Your task to perform on an android device: install app "eBay: The shopping marketplace" Image 0: 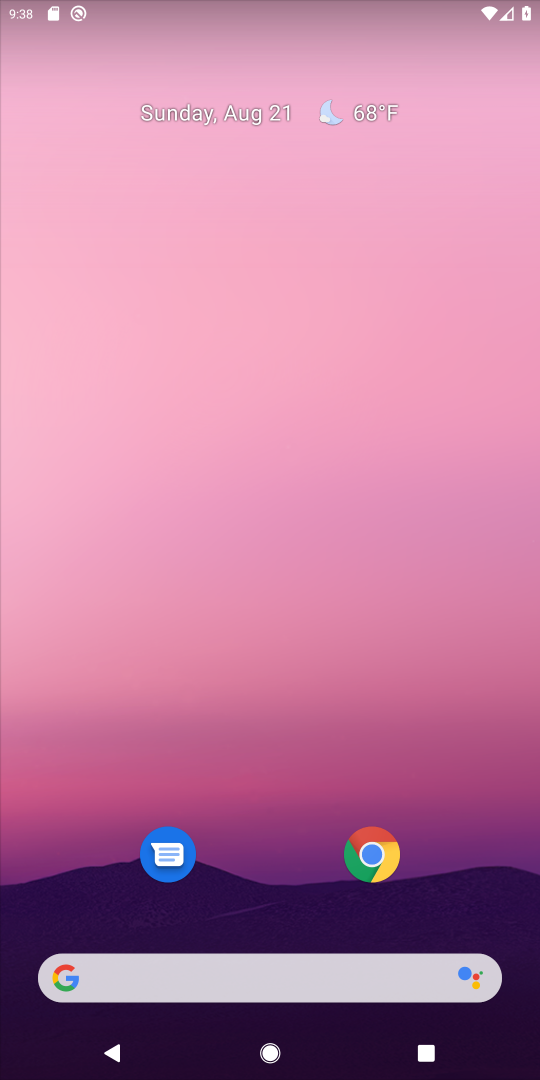
Step 0: drag from (276, 947) to (229, 181)
Your task to perform on an android device: install app "eBay: The shopping marketplace" Image 1: 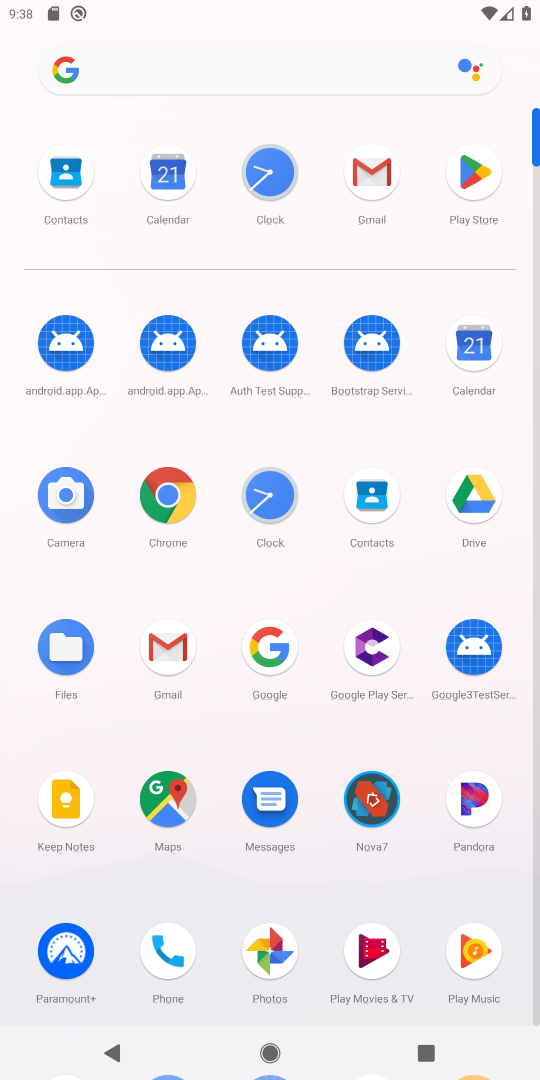
Step 1: click (473, 168)
Your task to perform on an android device: install app "eBay: The shopping marketplace" Image 2: 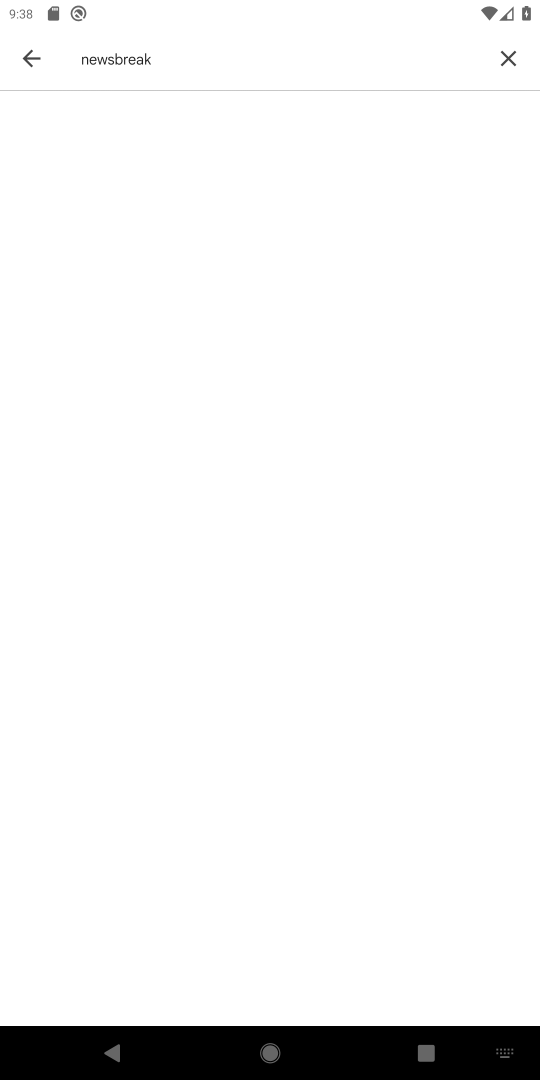
Step 2: click (511, 70)
Your task to perform on an android device: install app "eBay: The shopping marketplace" Image 3: 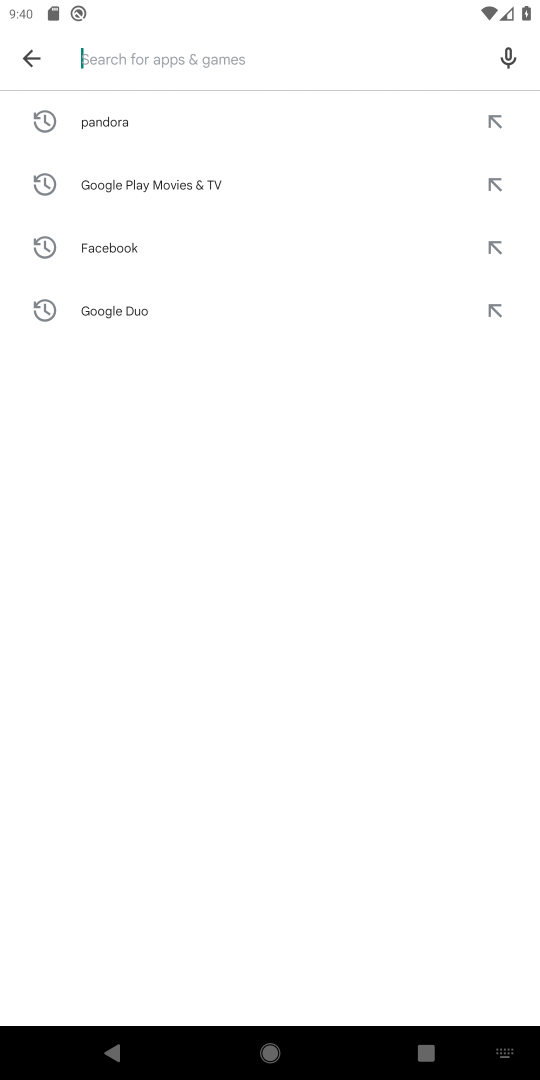
Step 3: type "ebay"
Your task to perform on an android device: install app "eBay: The shopping marketplace" Image 4: 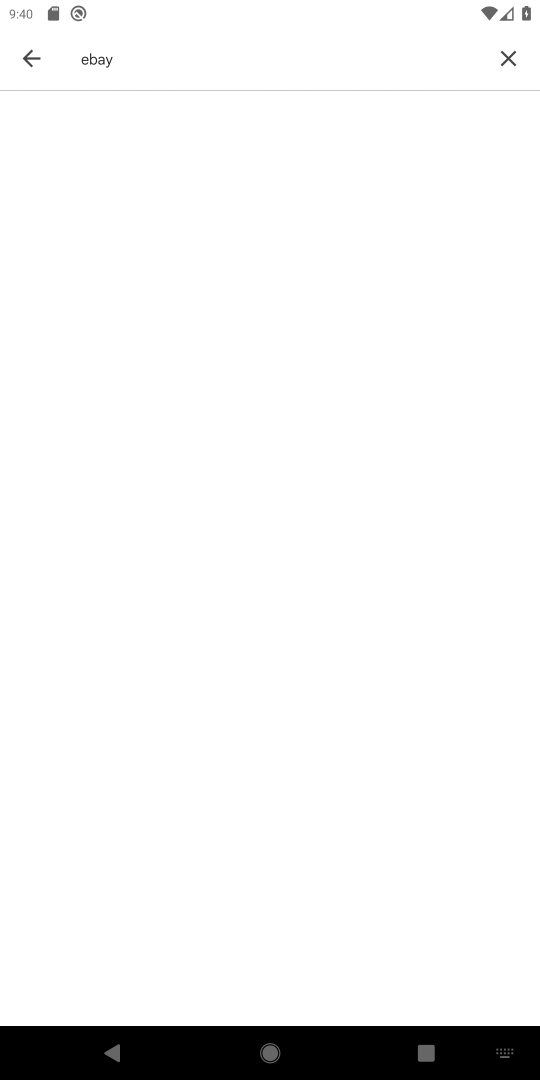
Step 4: task complete